Your task to perform on an android device: set an alarm Image 0: 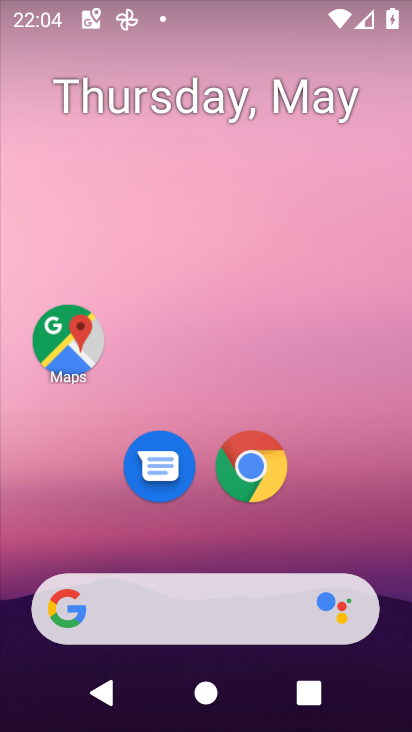
Step 0: drag from (369, 519) to (330, 131)
Your task to perform on an android device: set an alarm Image 1: 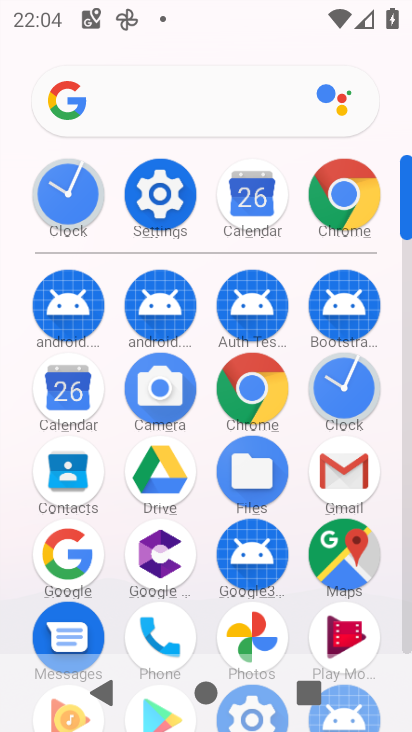
Step 1: click (78, 201)
Your task to perform on an android device: set an alarm Image 2: 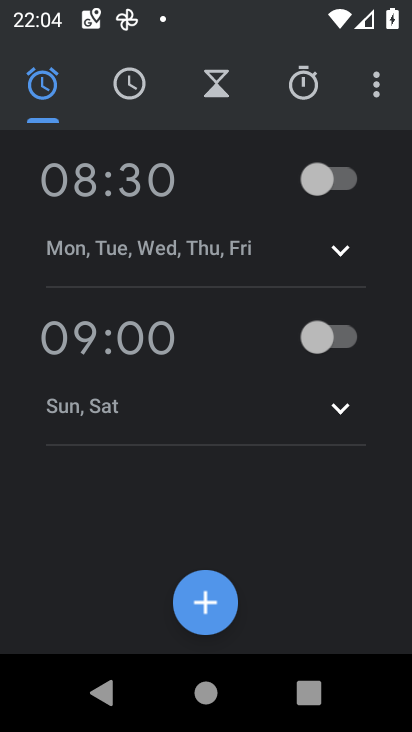
Step 2: task complete